Your task to perform on an android device: Go to Google maps Image 0: 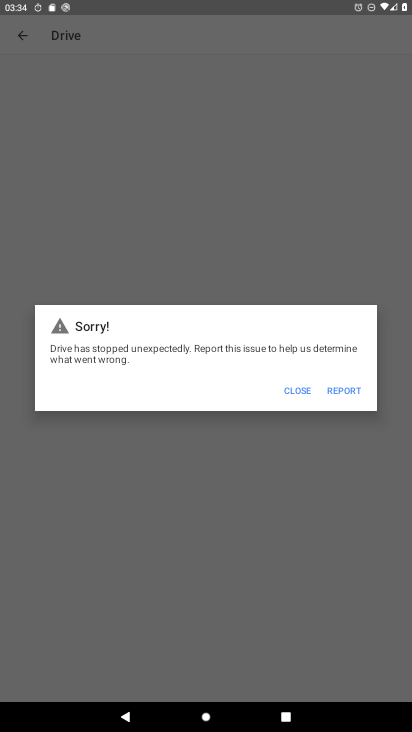
Step 0: press home button
Your task to perform on an android device: Go to Google maps Image 1: 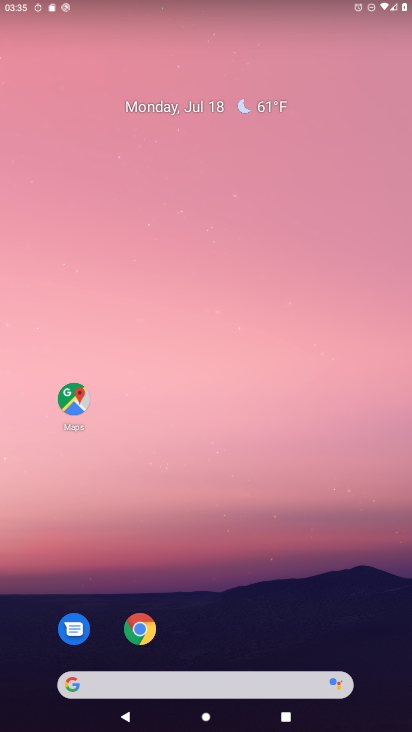
Step 1: drag from (189, 685) to (245, 135)
Your task to perform on an android device: Go to Google maps Image 2: 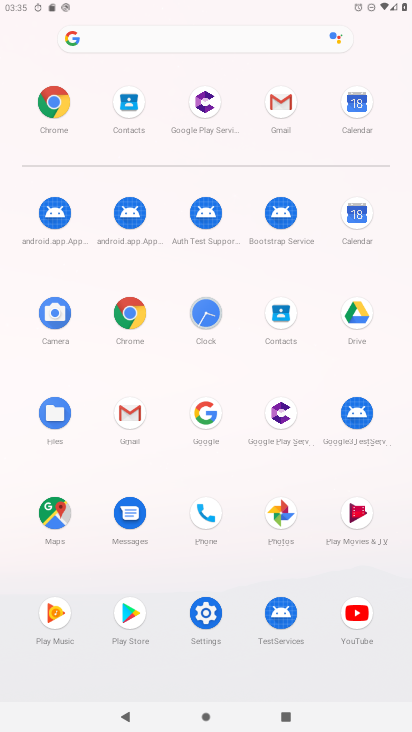
Step 2: click (57, 514)
Your task to perform on an android device: Go to Google maps Image 3: 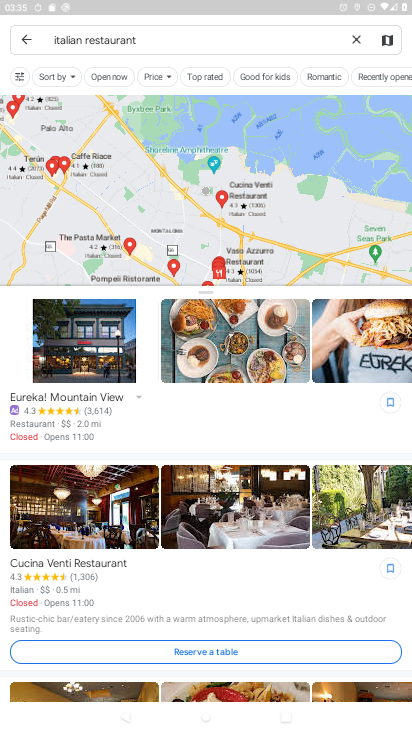
Step 3: task complete